Your task to perform on an android device: change keyboard looks Image 0: 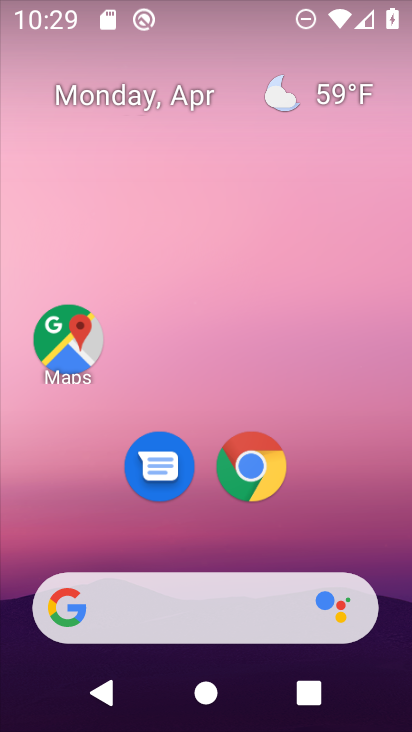
Step 0: drag from (252, 470) to (299, 25)
Your task to perform on an android device: change keyboard looks Image 1: 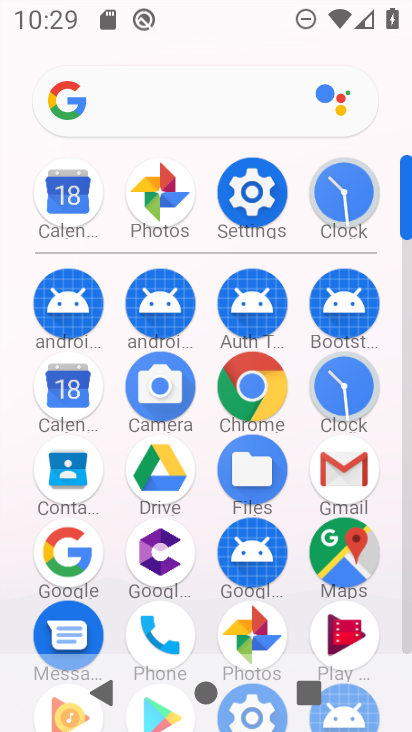
Step 1: click (249, 189)
Your task to perform on an android device: change keyboard looks Image 2: 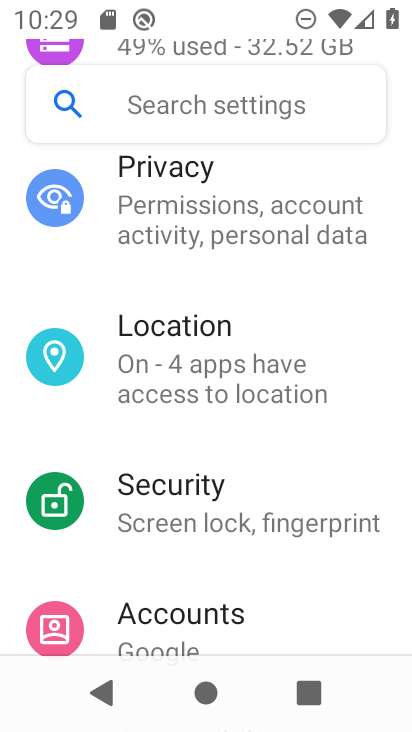
Step 2: drag from (187, 613) to (267, 78)
Your task to perform on an android device: change keyboard looks Image 3: 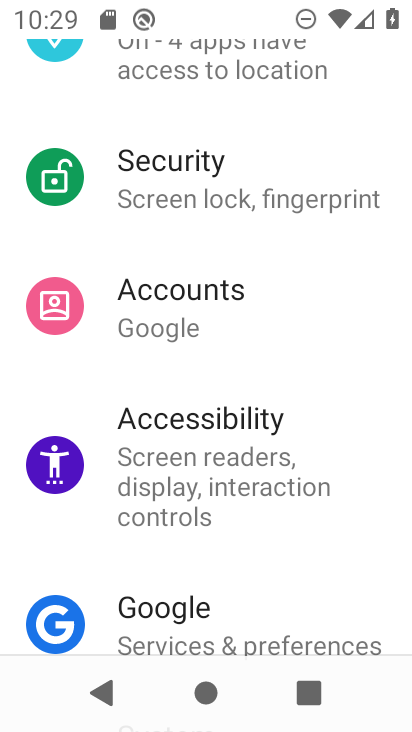
Step 3: drag from (189, 601) to (283, 43)
Your task to perform on an android device: change keyboard looks Image 4: 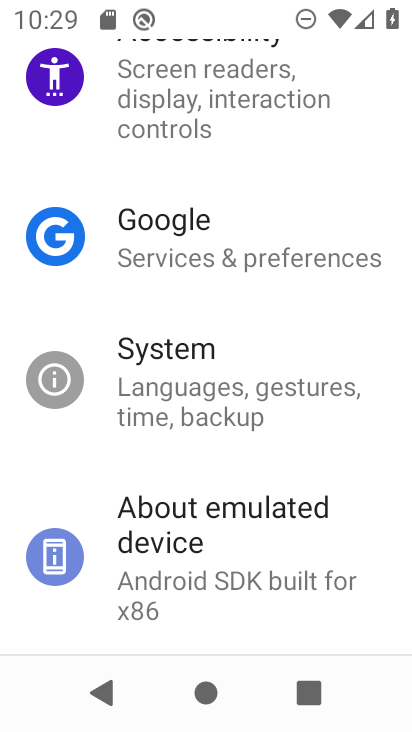
Step 4: click (184, 397)
Your task to perform on an android device: change keyboard looks Image 5: 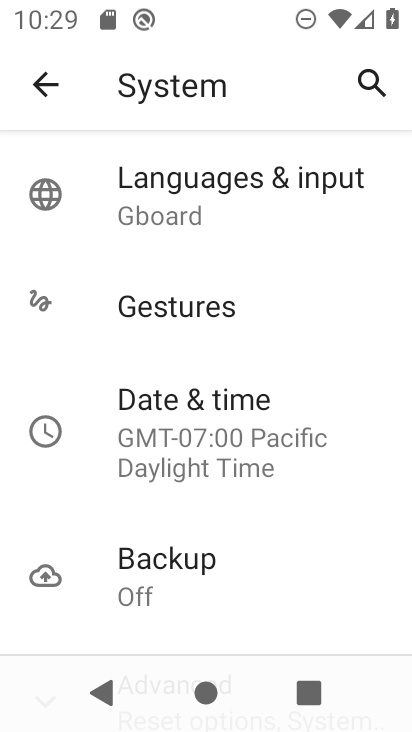
Step 5: click (213, 193)
Your task to perform on an android device: change keyboard looks Image 6: 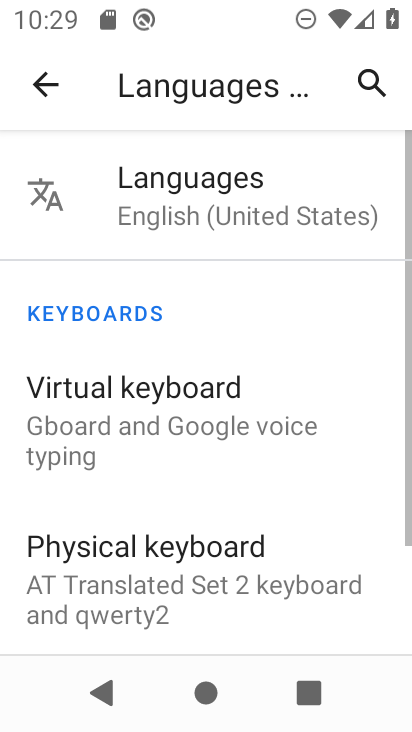
Step 6: click (125, 406)
Your task to perform on an android device: change keyboard looks Image 7: 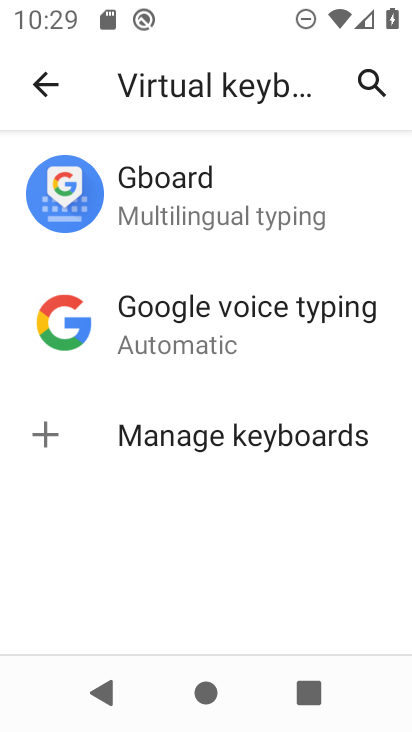
Step 7: click (171, 203)
Your task to perform on an android device: change keyboard looks Image 8: 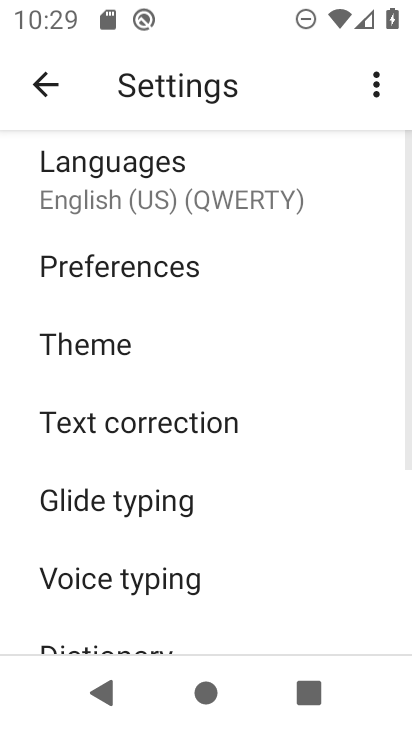
Step 8: click (89, 342)
Your task to perform on an android device: change keyboard looks Image 9: 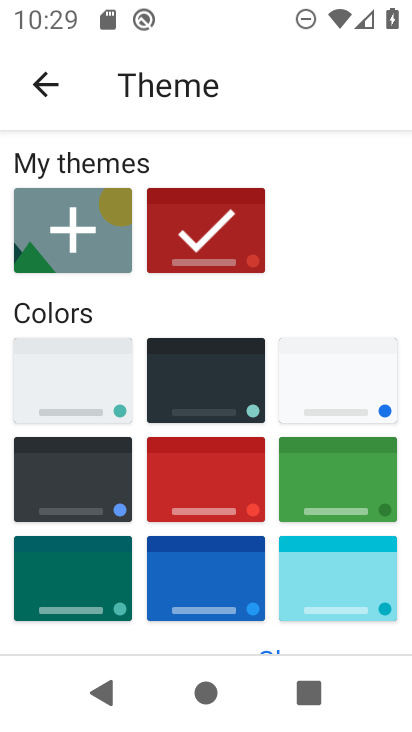
Step 9: click (182, 492)
Your task to perform on an android device: change keyboard looks Image 10: 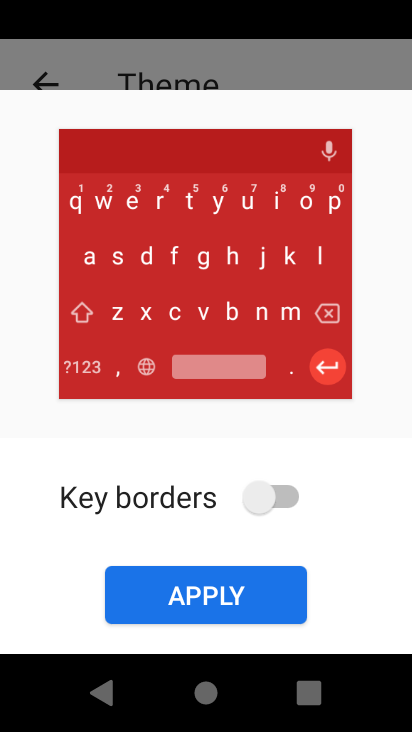
Step 10: click (196, 610)
Your task to perform on an android device: change keyboard looks Image 11: 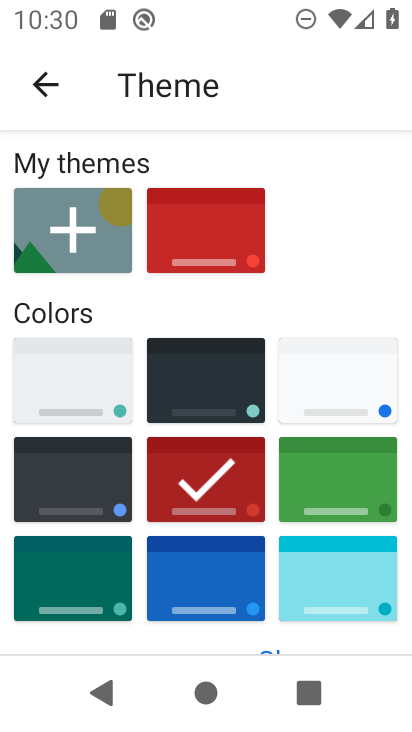
Step 11: task complete